Your task to perform on an android device: Go to accessibility settings Image 0: 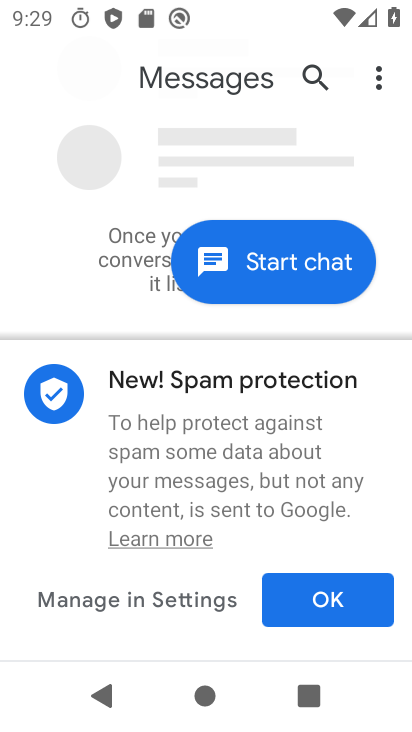
Step 0: press home button
Your task to perform on an android device: Go to accessibility settings Image 1: 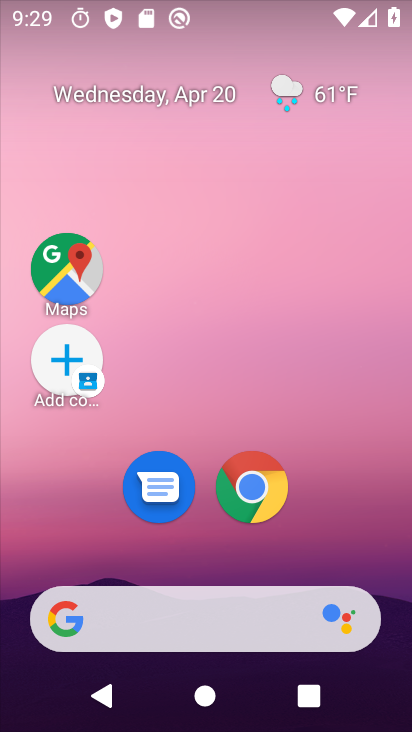
Step 1: drag from (318, 552) to (317, 192)
Your task to perform on an android device: Go to accessibility settings Image 2: 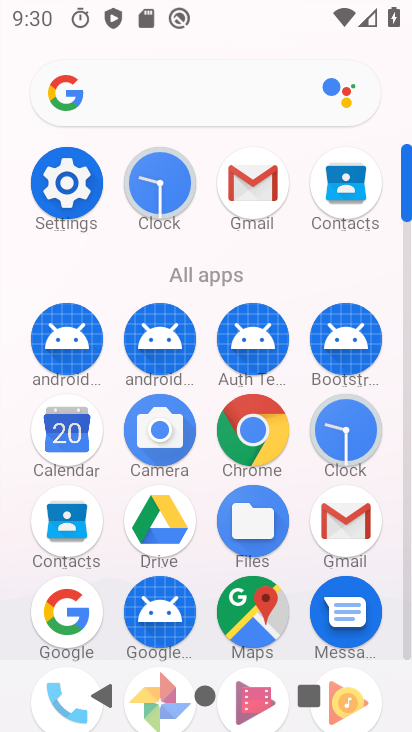
Step 2: click (71, 189)
Your task to perform on an android device: Go to accessibility settings Image 3: 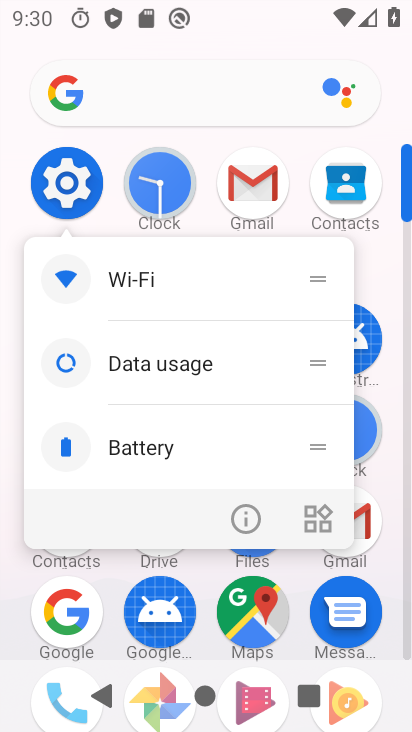
Step 3: click (72, 182)
Your task to perform on an android device: Go to accessibility settings Image 4: 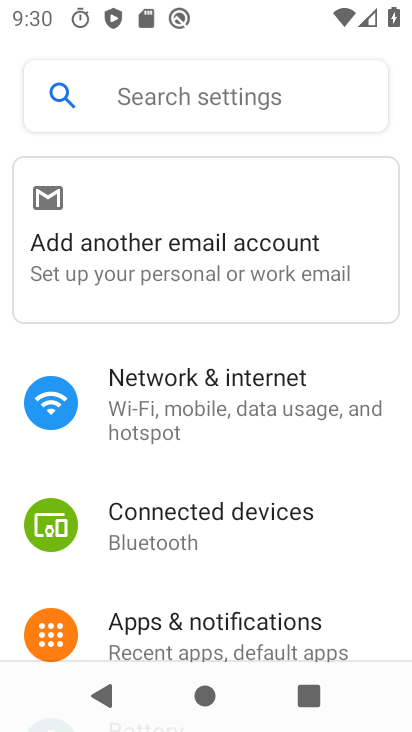
Step 4: drag from (120, 479) to (102, 386)
Your task to perform on an android device: Go to accessibility settings Image 5: 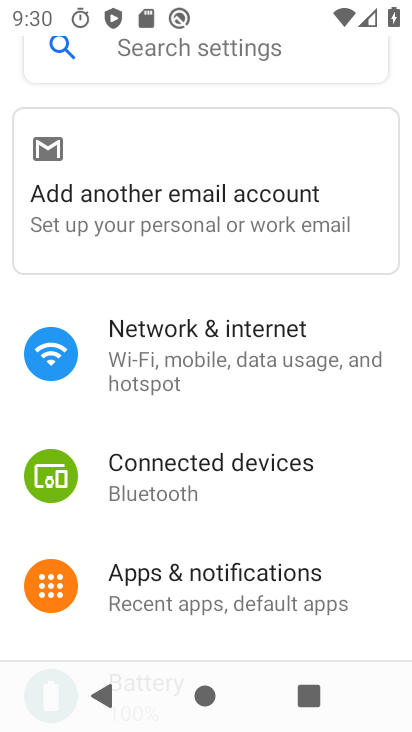
Step 5: drag from (127, 492) to (118, 384)
Your task to perform on an android device: Go to accessibility settings Image 6: 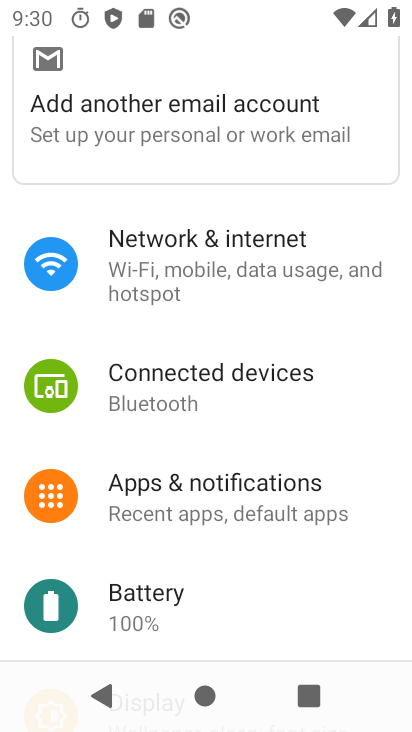
Step 6: drag from (161, 503) to (159, 412)
Your task to perform on an android device: Go to accessibility settings Image 7: 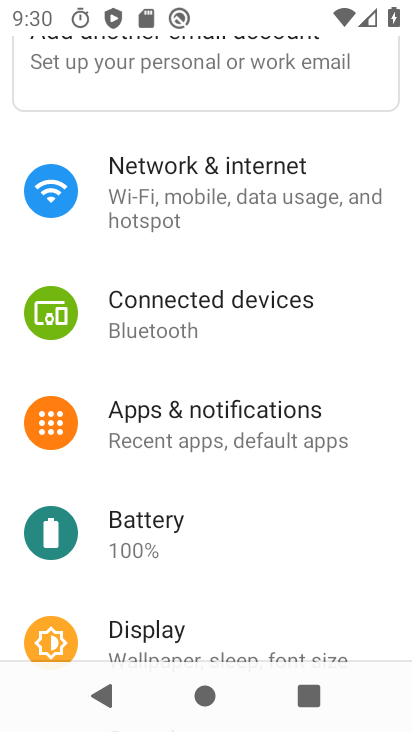
Step 7: drag from (197, 520) to (166, 415)
Your task to perform on an android device: Go to accessibility settings Image 8: 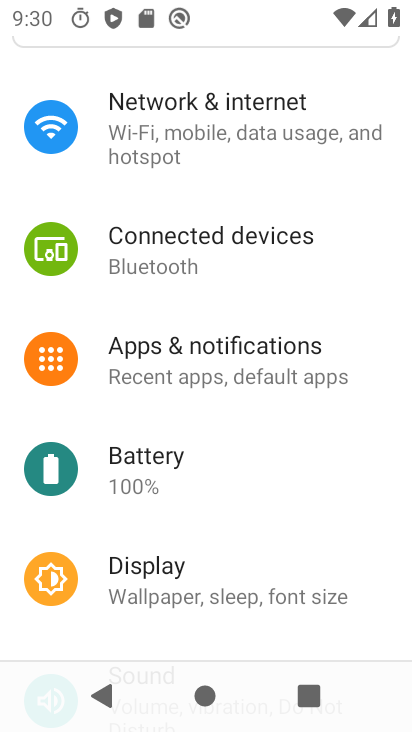
Step 8: drag from (175, 524) to (153, 435)
Your task to perform on an android device: Go to accessibility settings Image 9: 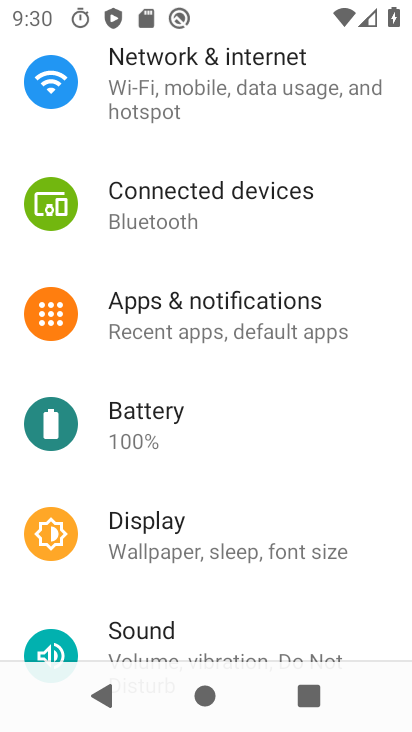
Step 9: drag from (152, 539) to (134, 443)
Your task to perform on an android device: Go to accessibility settings Image 10: 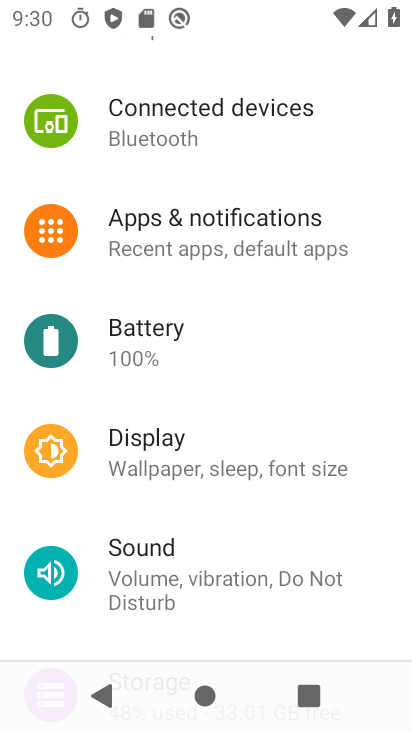
Step 10: drag from (143, 523) to (128, 440)
Your task to perform on an android device: Go to accessibility settings Image 11: 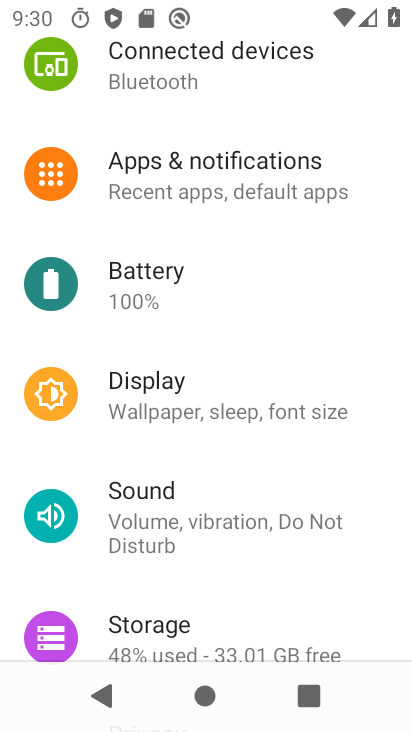
Step 11: drag from (154, 499) to (140, 419)
Your task to perform on an android device: Go to accessibility settings Image 12: 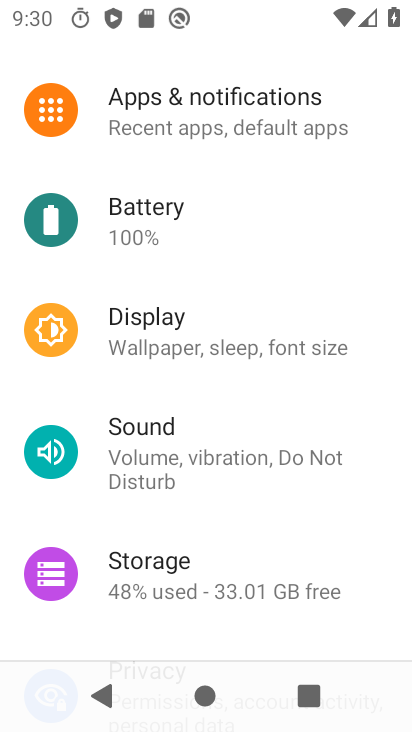
Step 12: drag from (165, 501) to (152, 403)
Your task to perform on an android device: Go to accessibility settings Image 13: 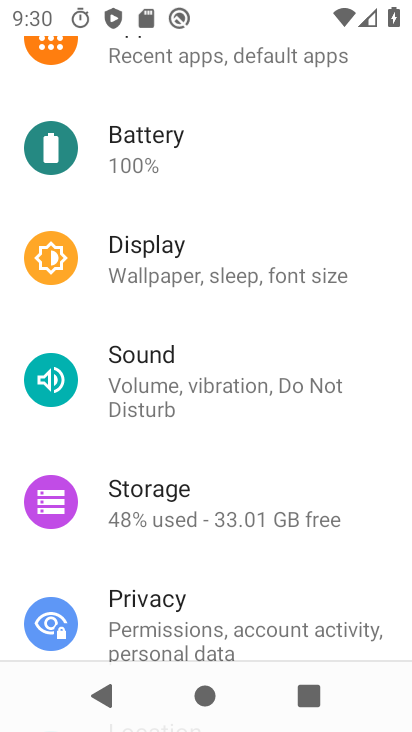
Step 13: drag from (205, 476) to (191, 412)
Your task to perform on an android device: Go to accessibility settings Image 14: 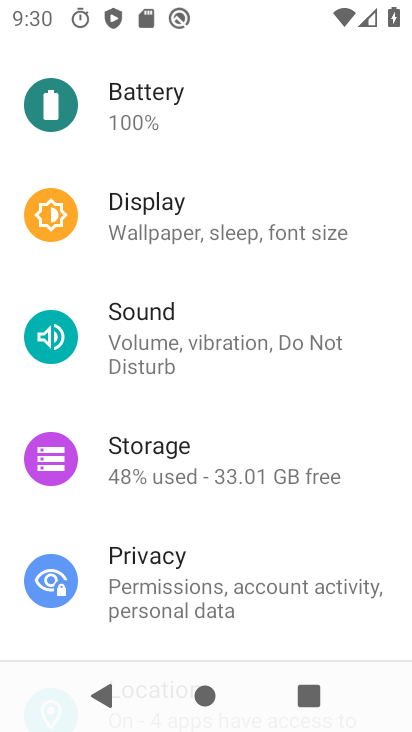
Step 14: drag from (227, 440) to (213, 222)
Your task to perform on an android device: Go to accessibility settings Image 15: 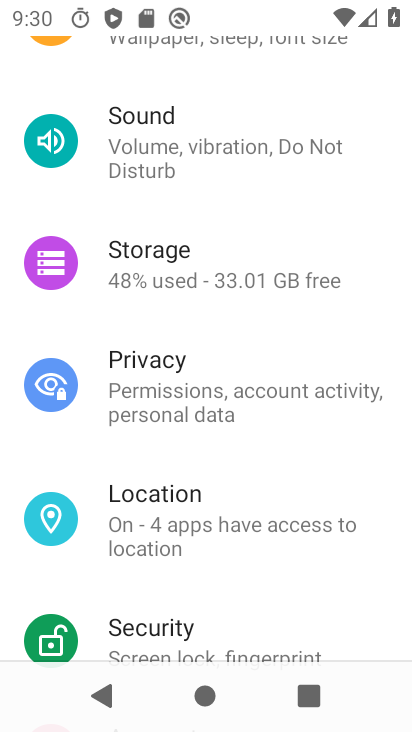
Step 15: drag from (232, 374) to (222, 283)
Your task to perform on an android device: Go to accessibility settings Image 16: 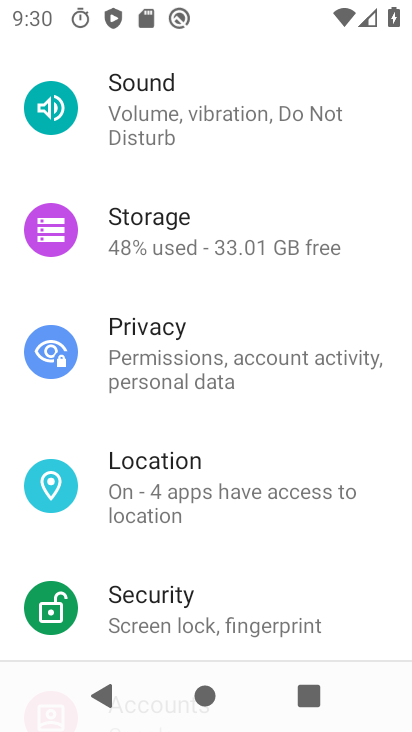
Step 16: drag from (249, 462) to (223, 340)
Your task to perform on an android device: Go to accessibility settings Image 17: 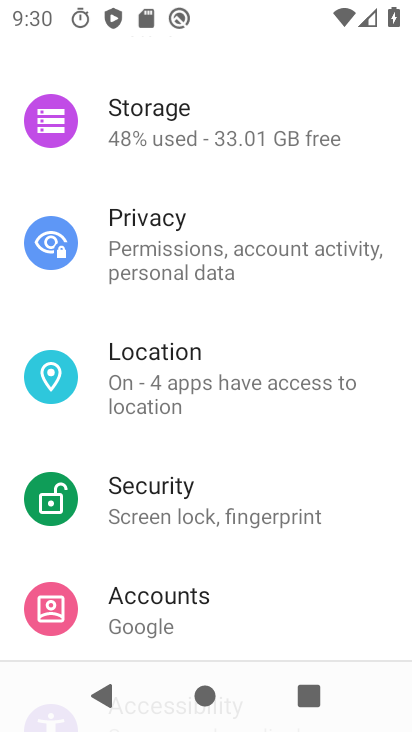
Step 17: drag from (249, 466) to (228, 367)
Your task to perform on an android device: Go to accessibility settings Image 18: 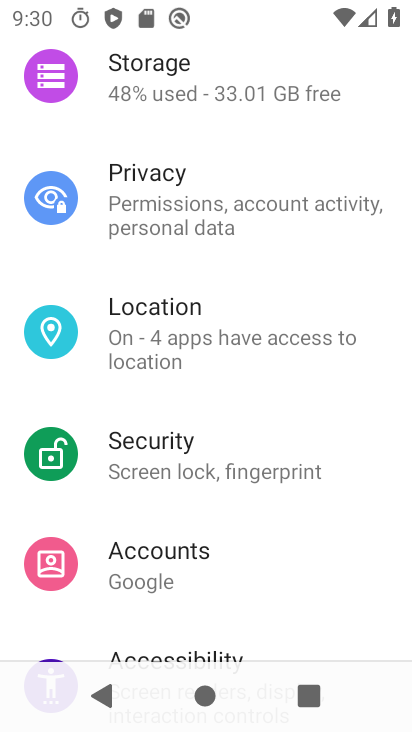
Step 18: drag from (237, 471) to (227, 364)
Your task to perform on an android device: Go to accessibility settings Image 19: 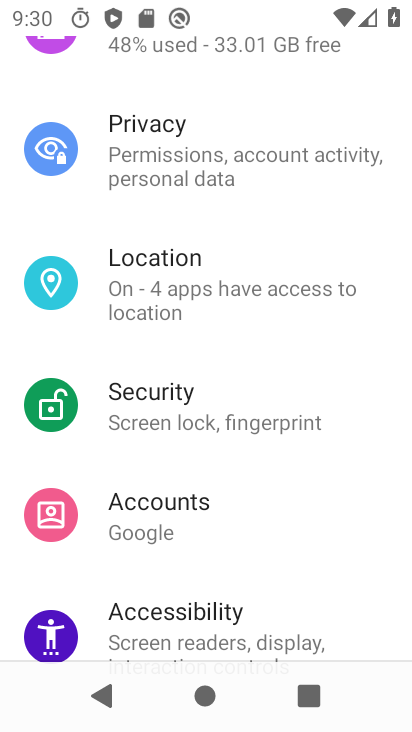
Step 19: drag from (240, 480) to (219, 392)
Your task to perform on an android device: Go to accessibility settings Image 20: 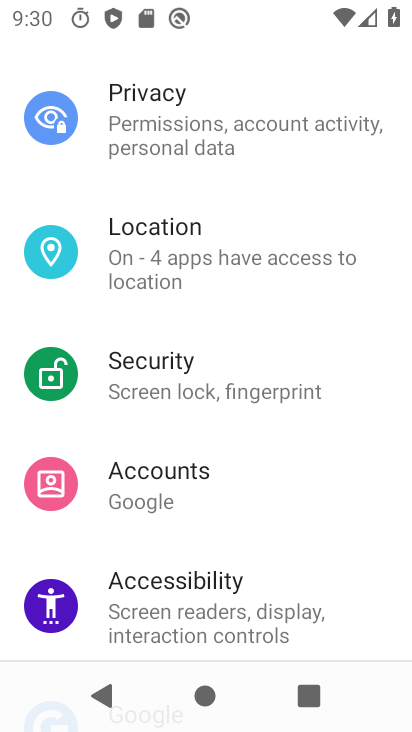
Step 20: click (176, 603)
Your task to perform on an android device: Go to accessibility settings Image 21: 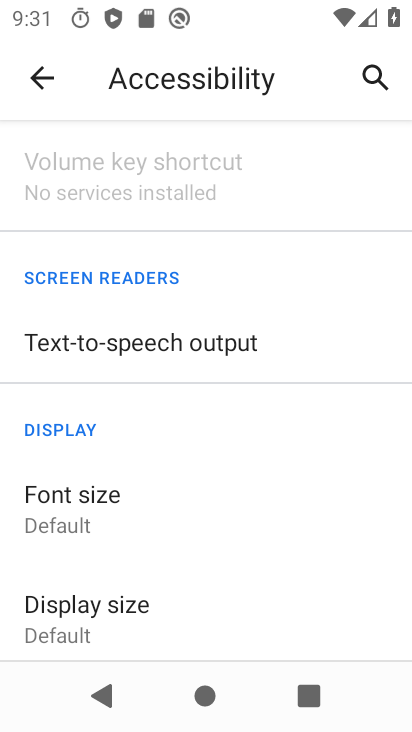
Step 21: task complete